Your task to perform on an android device: Open maps Image 0: 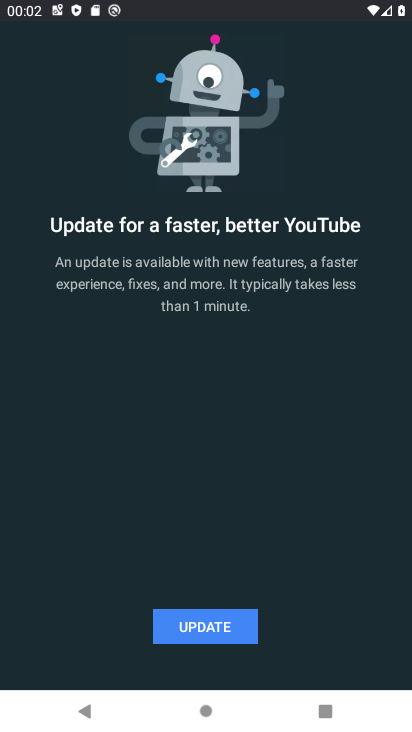
Step 0: press home button
Your task to perform on an android device: Open maps Image 1: 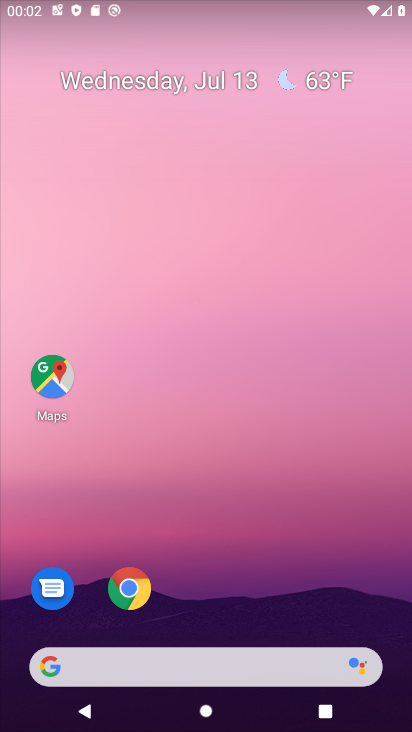
Step 1: click (31, 370)
Your task to perform on an android device: Open maps Image 2: 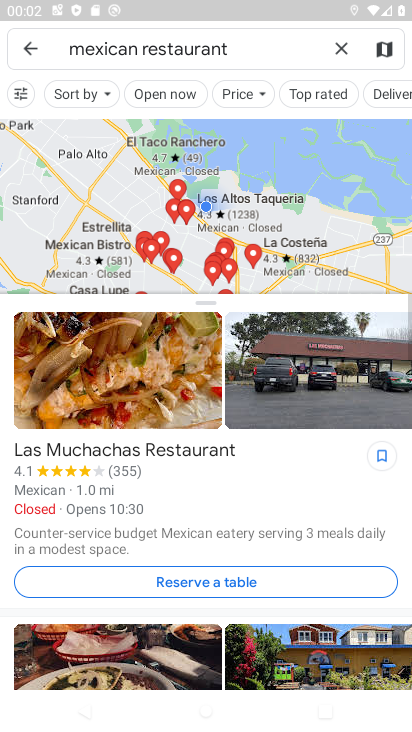
Step 2: click (337, 46)
Your task to perform on an android device: Open maps Image 3: 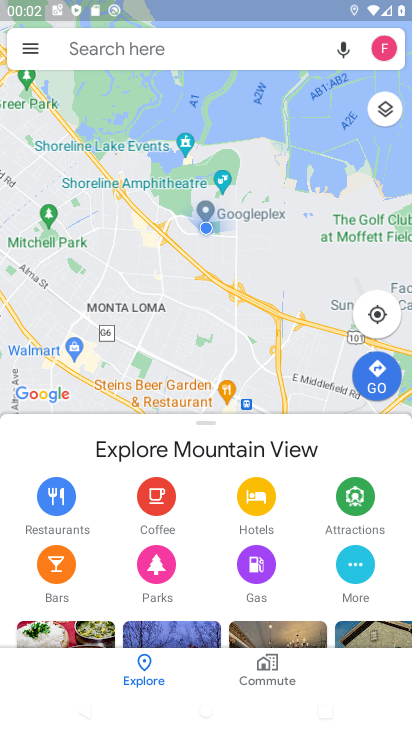
Step 3: task complete